Your task to perform on an android device: toggle priority inbox in the gmail app Image 0: 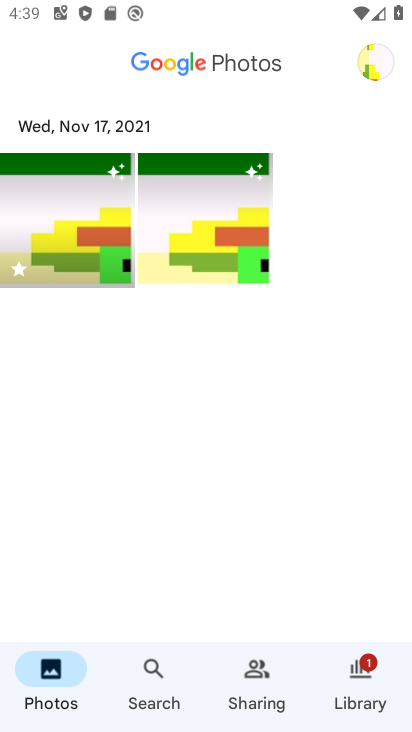
Step 0: press home button
Your task to perform on an android device: toggle priority inbox in the gmail app Image 1: 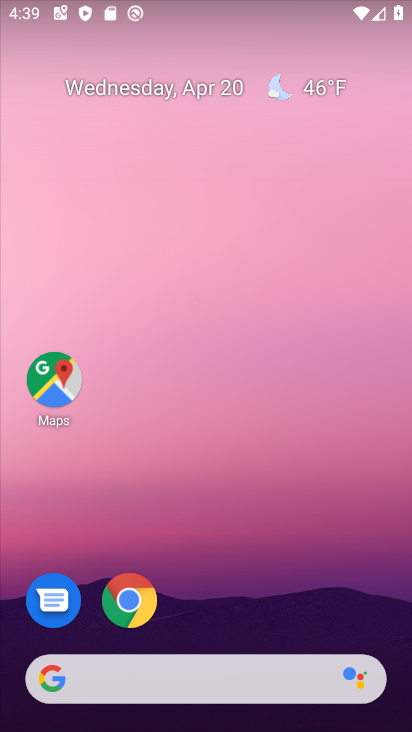
Step 1: drag from (223, 612) to (226, 223)
Your task to perform on an android device: toggle priority inbox in the gmail app Image 2: 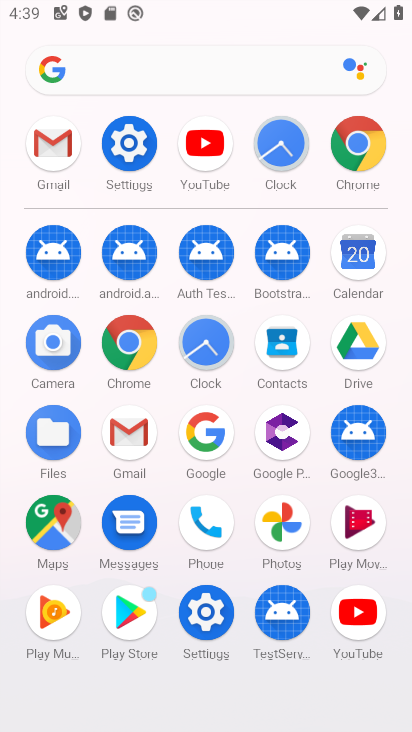
Step 2: click (127, 423)
Your task to perform on an android device: toggle priority inbox in the gmail app Image 3: 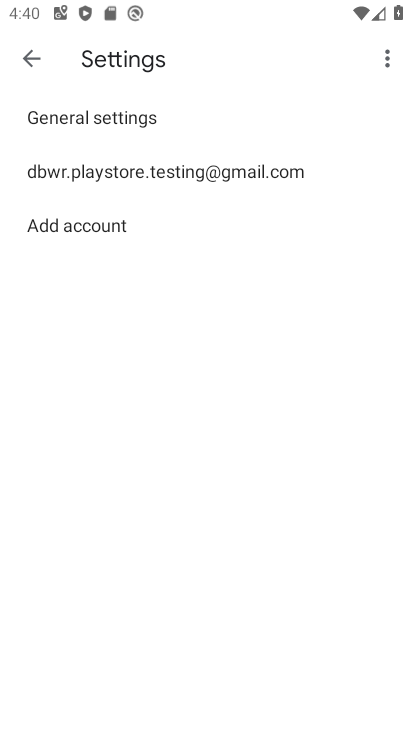
Step 3: click (172, 168)
Your task to perform on an android device: toggle priority inbox in the gmail app Image 4: 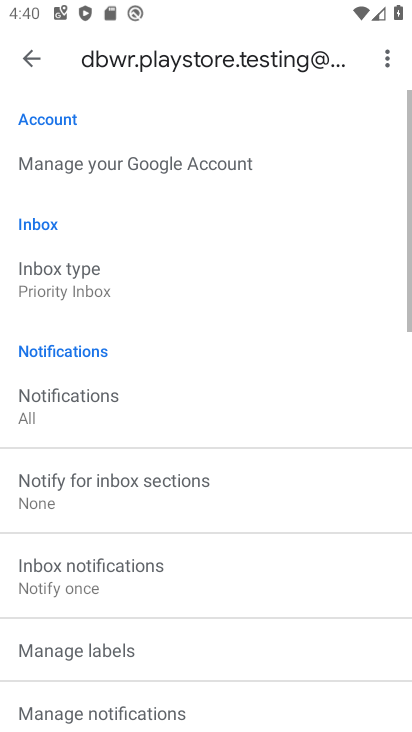
Step 4: drag from (213, 592) to (243, 164)
Your task to perform on an android device: toggle priority inbox in the gmail app Image 5: 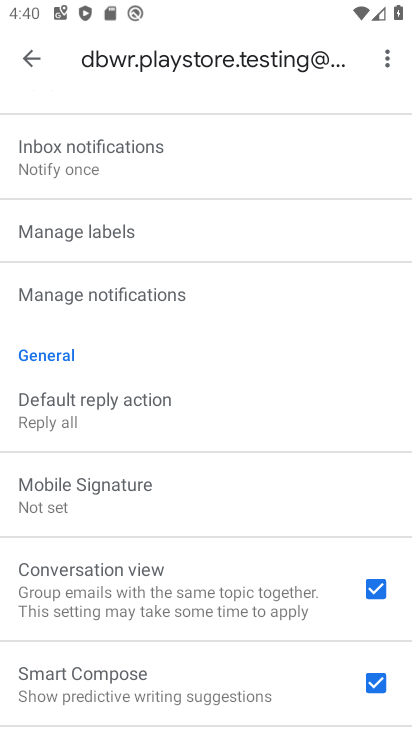
Step 5: drag from (182, 628) to (195, 144)
Your task to perform on an android device: toggle priority inbox in the gmail app Image 6: 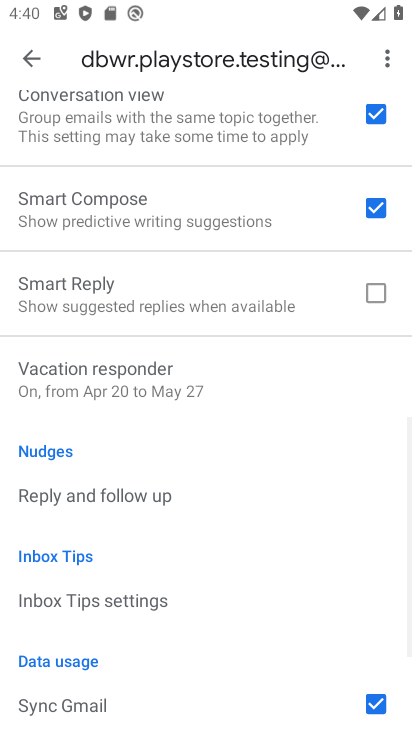
Step 6: drag from (195, 144) to (239, 705)
Your task to perform on an android device: toggle priority inbox in the gmail app Image 7: 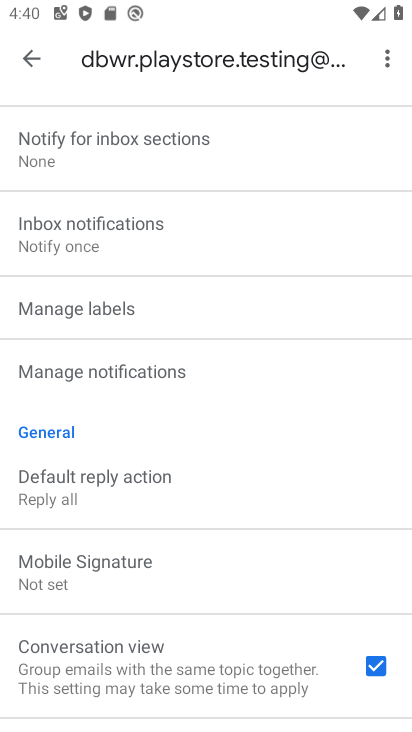
Step 7: drag from (159, 187) to (179, 725)
Your task to perform on an android device: toggle priority inbox in the gmail app Image 8: 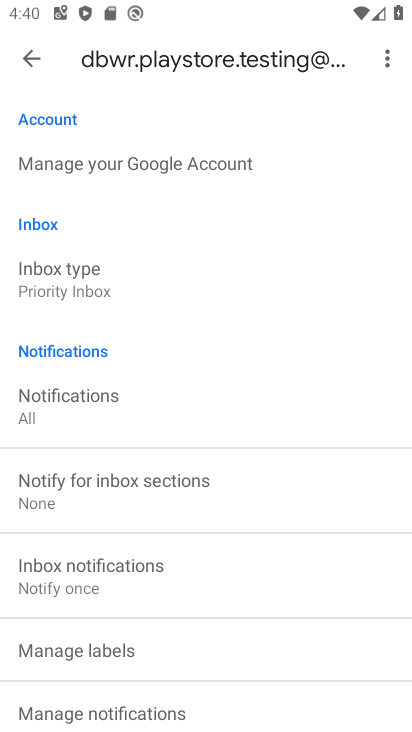
Step 8: click (130, 277)
Your task to perform on an android device: toggle priority inbox in the gmail app Image 9: 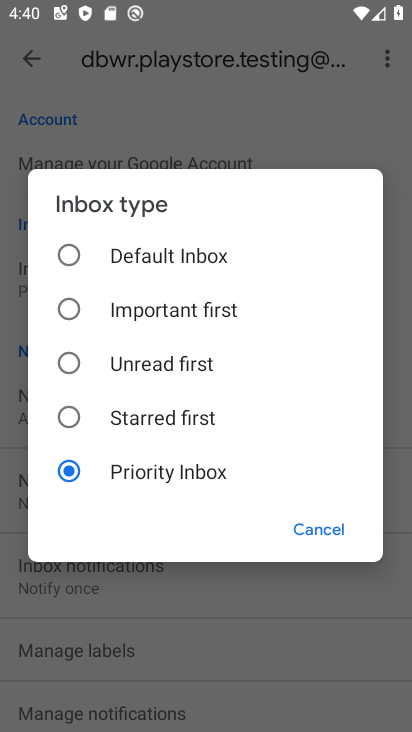
Step 9: click (106, 476)
Your task to perform on an android device: toggle priority inbox in the gmail app Image 10: 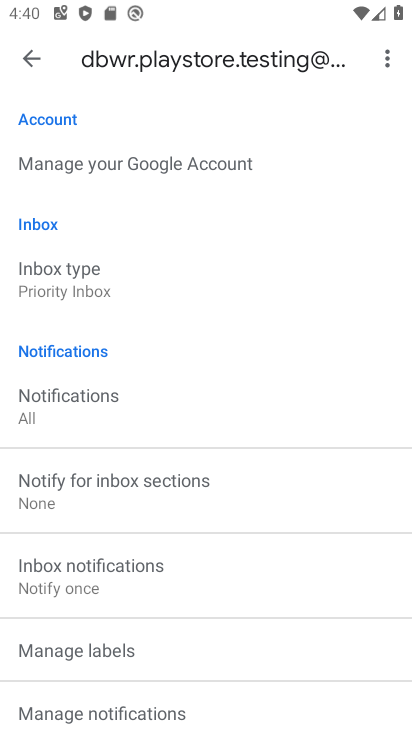
Step 10: task complete